Your task to perform on an android device: Open display settings Image 0: 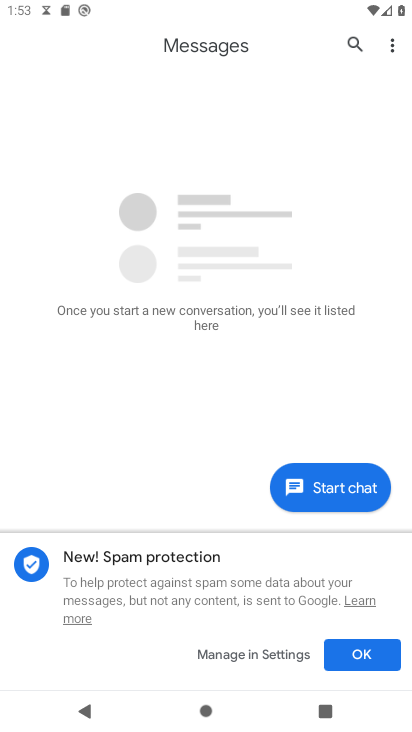
Step 0: press home button
Your task to perform on an android device: Open display settings Image 1: 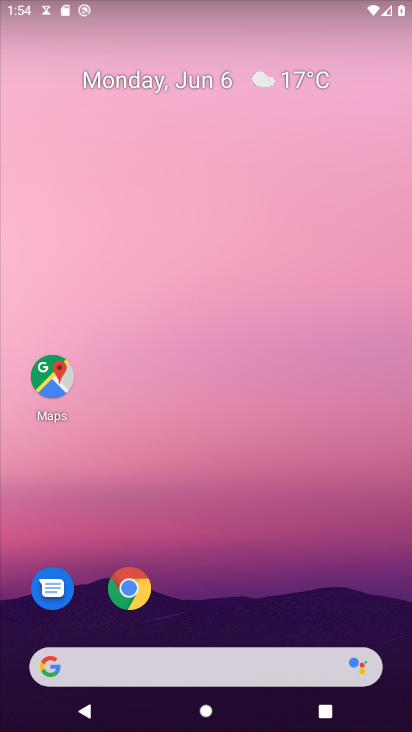
Step 1: drag from (207, 520) to (189, 130)
Your task to perform on an android device: Open display settings Image 2: 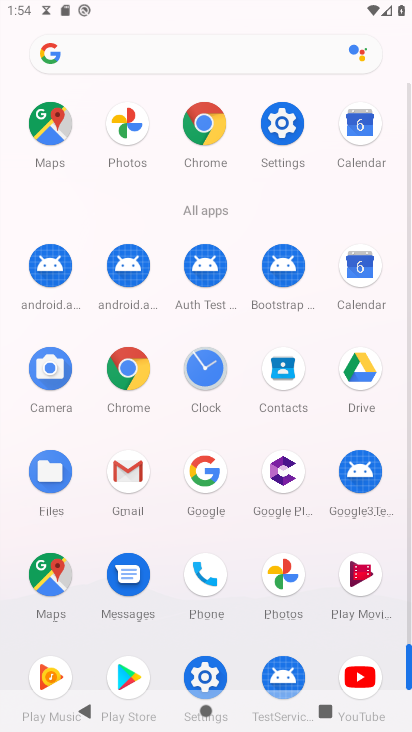
Step 2: click (280, 147)
Your task to perform on an android device: Open display settings Image 3: 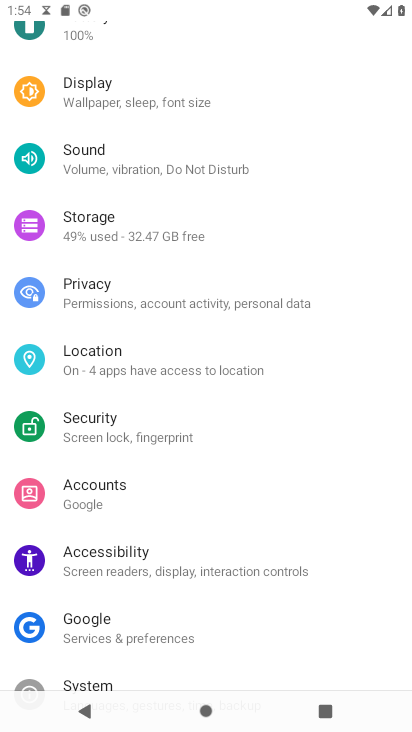
Step 3: click (109, 103)
Your task to perform on an android device: Open display settings Image 4: 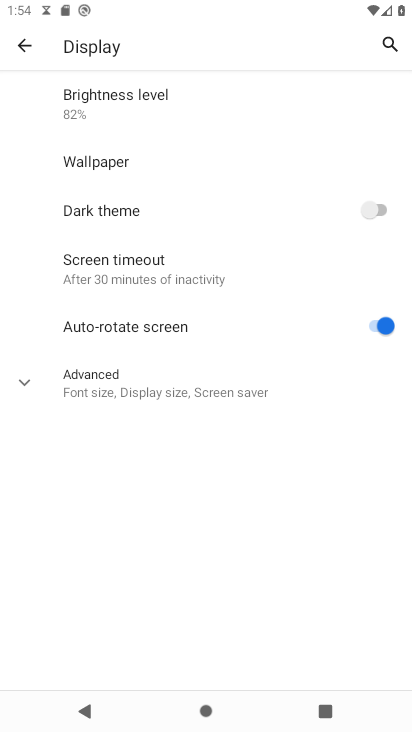
Step 4: task complete